Your task to perform on an android device: manage bookmarks in the chrome app Image 0: 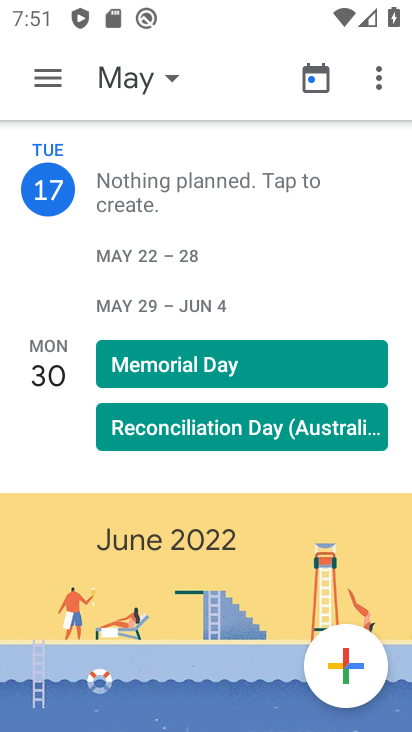
Step 0: press home button
Your task to perform on an android device: manage bookmarks in the chrome app Image 1: 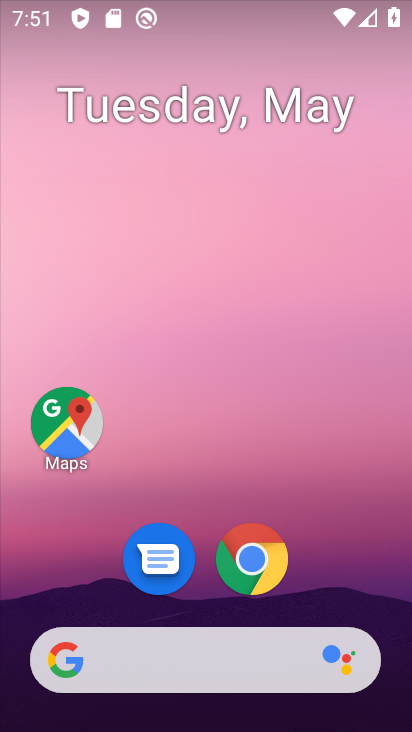
Step 1: click (256, 554)
Your task to perform on an android device: manage bookmarks in the chrome app Image 2: 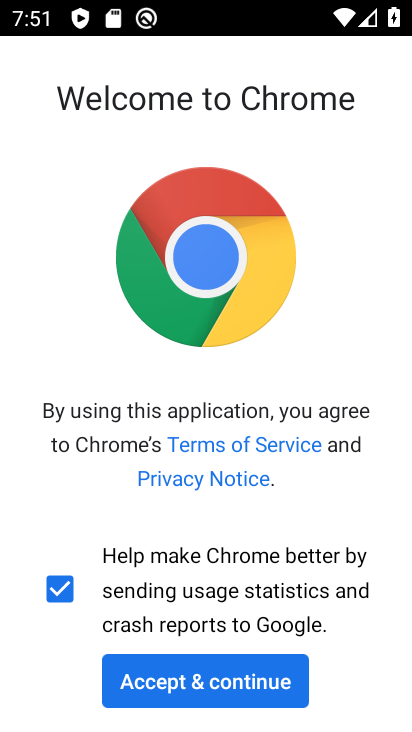
Step 2: click (277, 671)
Your task to perform on an android device: manage bookmarks in the chrome app Image 3: 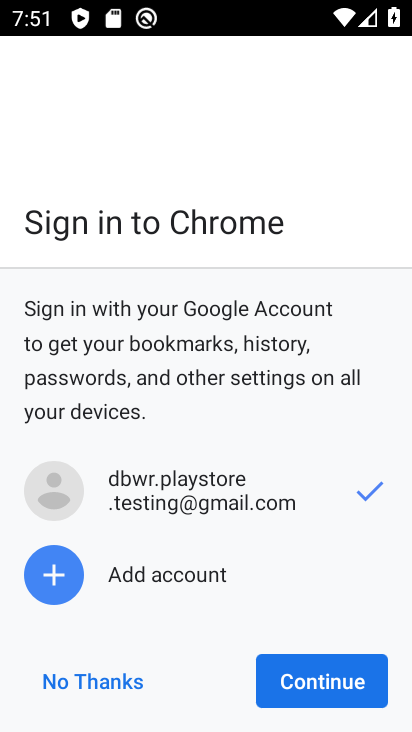
Step 3: click (298, 677)
Your task to perform on an android device: manage bookmarks in the chrome app Image 4: 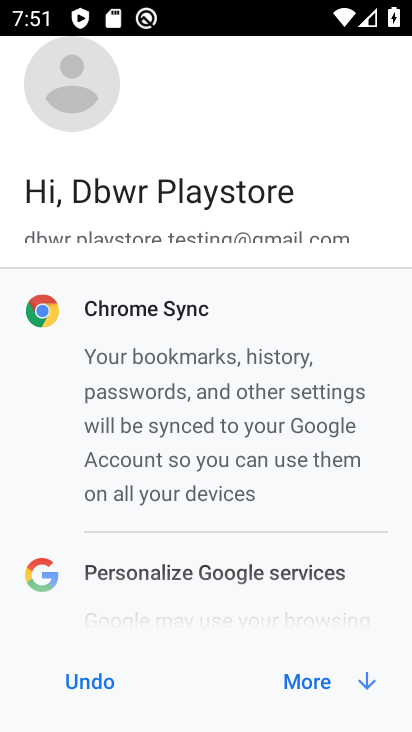
Step 4: click (304, 666)
Your task to perform on an android device: manage bookmarks in the chrome app Image 5: 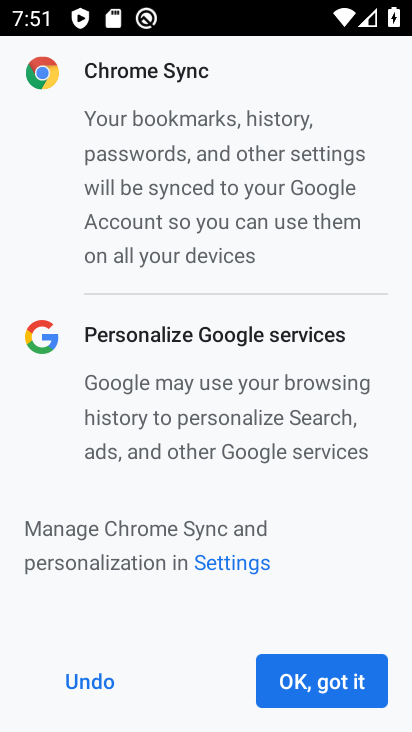
Step 5: click (304, 666)
Your task to perform on an android device: manage bookmarks in the chrome app Image 6: 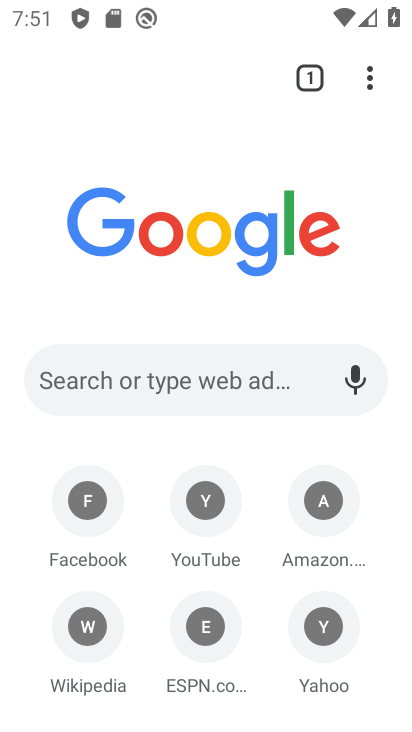
Step 6: drag from (363, 85) to (202, 312)
Your task to perform on an android device: manage bookmarks in the chrome app Image 7: 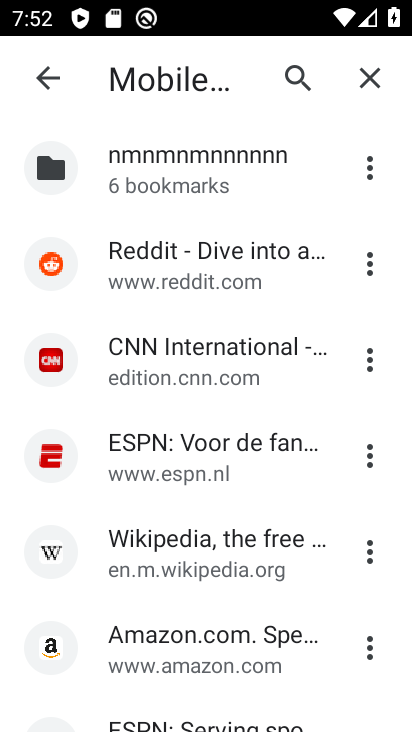
Step 7: drag from (261, 524) to (282, 301)
Your task to perform on an android device: manage bookmarks in the chrome app Image 8: 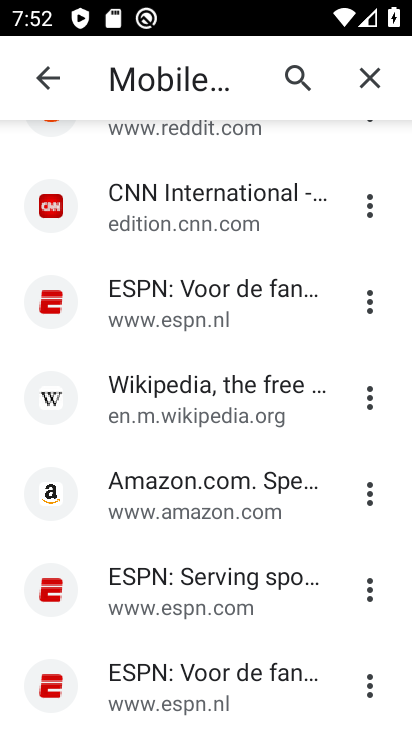
Step 8: click (365, 396)
Your task to perform on an android device: manage bookmarks in the chrome app Image 9: 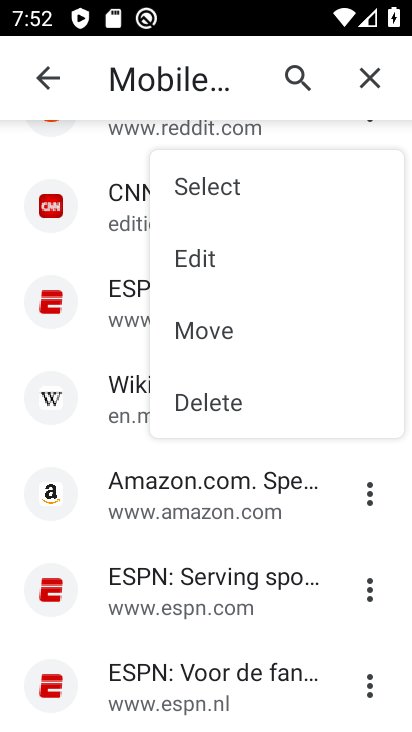
Step 9: click (242, 391)
Your task to perform on an android device: manage bookmarks in the chrome app Image 10: 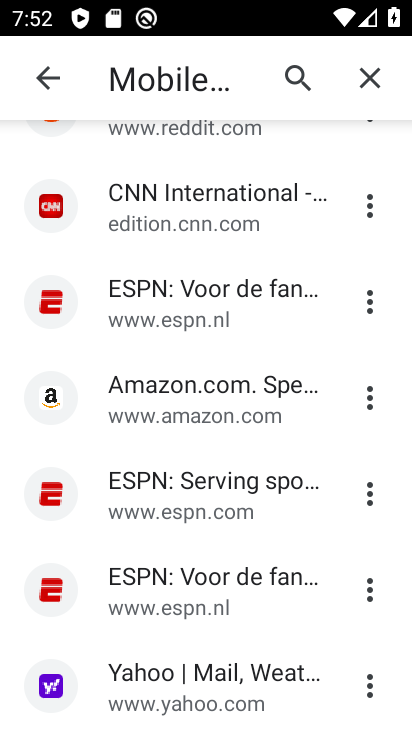
Step 10: task complete